Your task to perform on an android device: read, delete, or share a saved page in the chrome app Image 0: 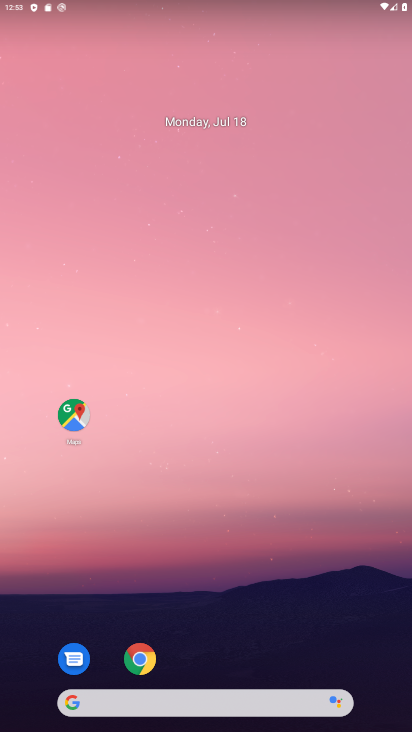
Step 0: drag from (235, 650) to (274, 124)
Your task to perform on an android device: read, delete, or share a saved page in the chrome app Image 1: 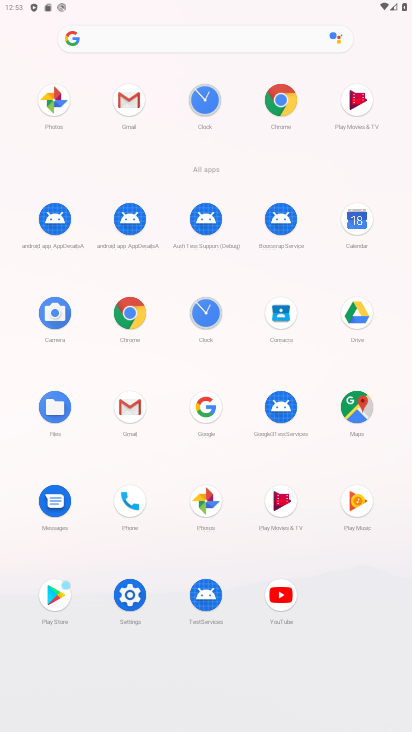
Step 1: click (129, 312)
Your task to perform on an android device: read, delete, or share a saved page in the chrome app Image 2: 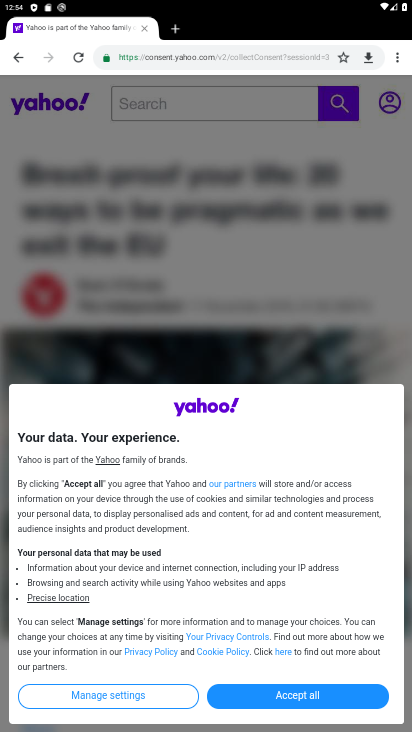
Step 2: task complete